Your task to perform on an android device: turn vacation reply on in the gmail app Image 0: 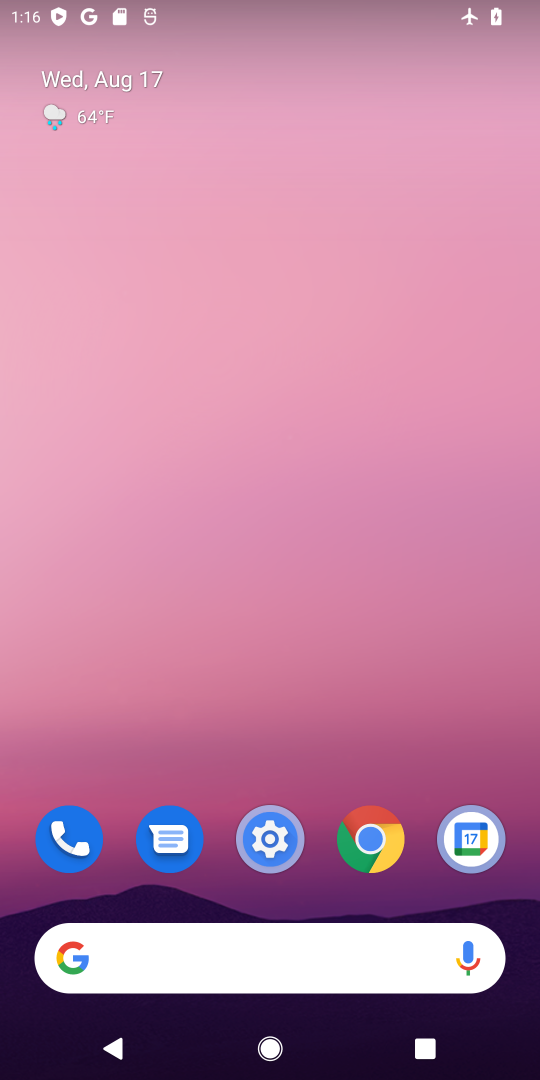
Step 0: drag from (240, 965) to (243, 241)
Your task to perform on an android device: turn vacation reply on in the gmail app Image 1: 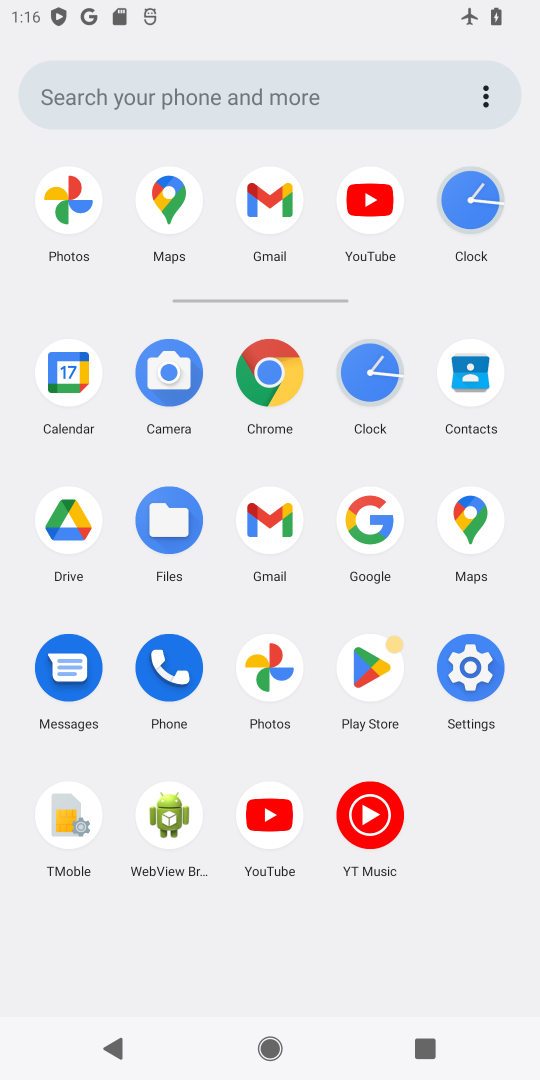
Step 1: click (267, 520)
Your task to perform on an android device: turn vacation reply on in the gmail app Image 2: 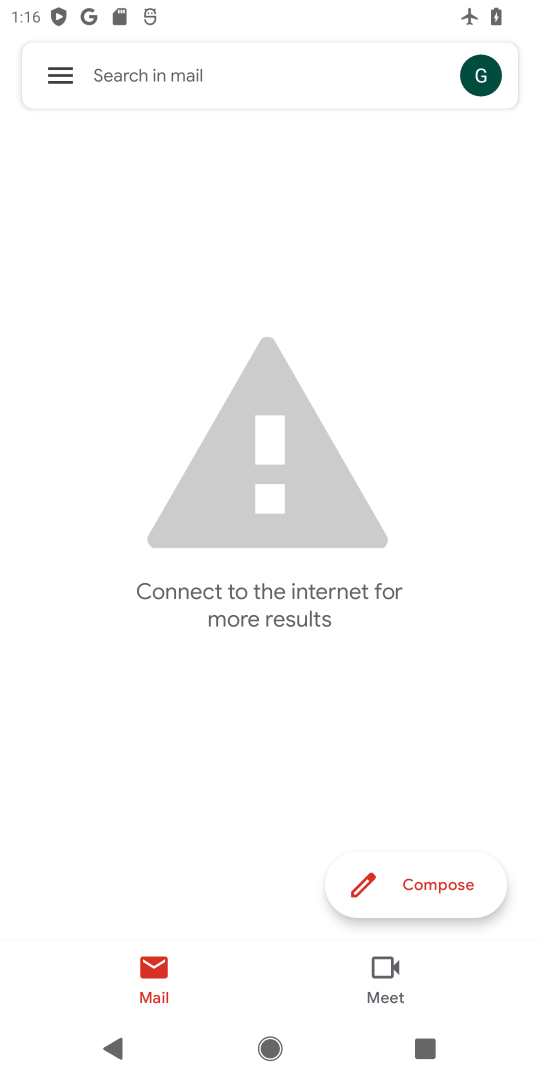
Step 2: click (51, 77)
Your task to perform on an android device: turn vacation reply on in the gmail app Image 3: 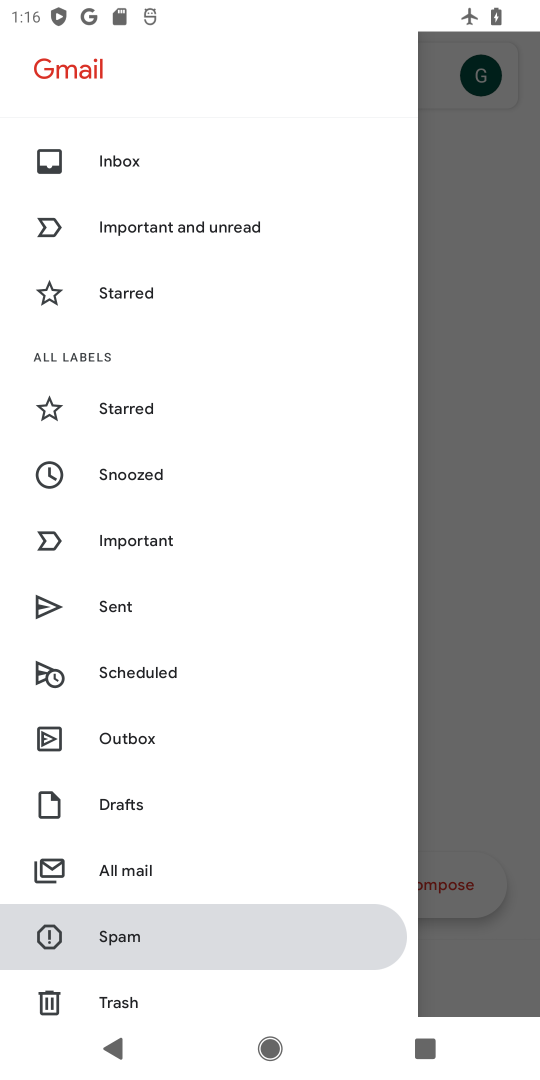
Step 3: drag from (144, 882) to (216, 763)
Your task to perform on an android device: turn vacation reply on in the gmail app Image 4: 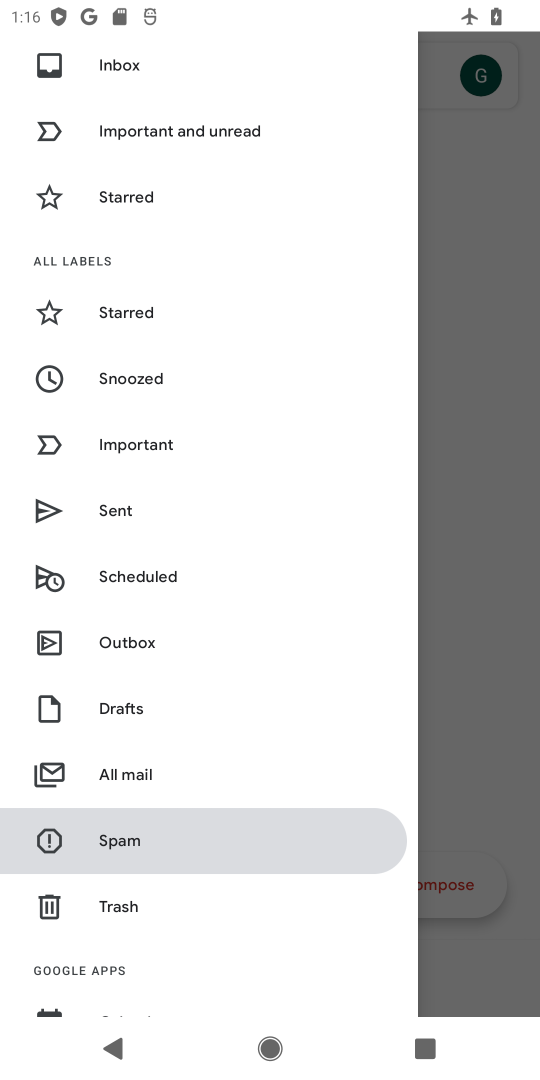
Step 4: drag from (156, 909) to (225, 750)
Your task to perform on an android device: turn vacation reply on in the gmail app Image 5: 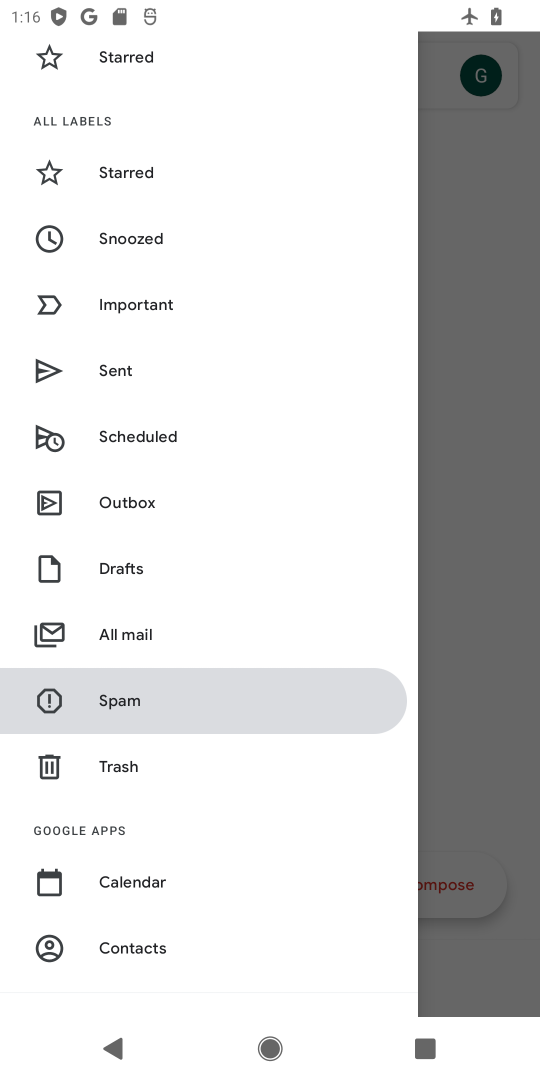
Step 5: drag from (146, 898) to (231, 718)
Your task to perform on an android device: turn vacation reply on in the gmail app Image 6: 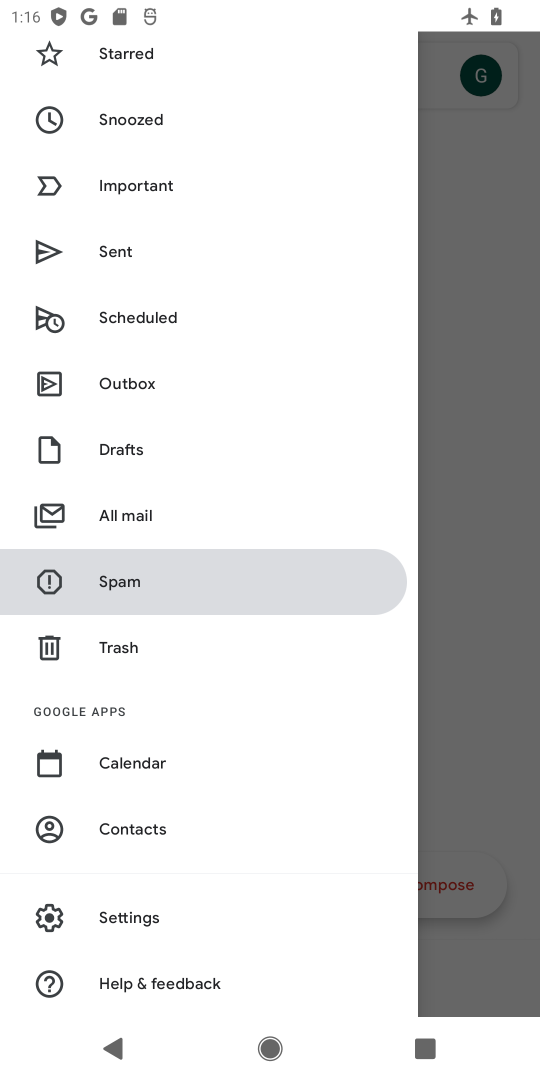
Step 6: click (141, 910)
Your task to perform on an android device: turn vacation reply on in the gmail app Image 7: 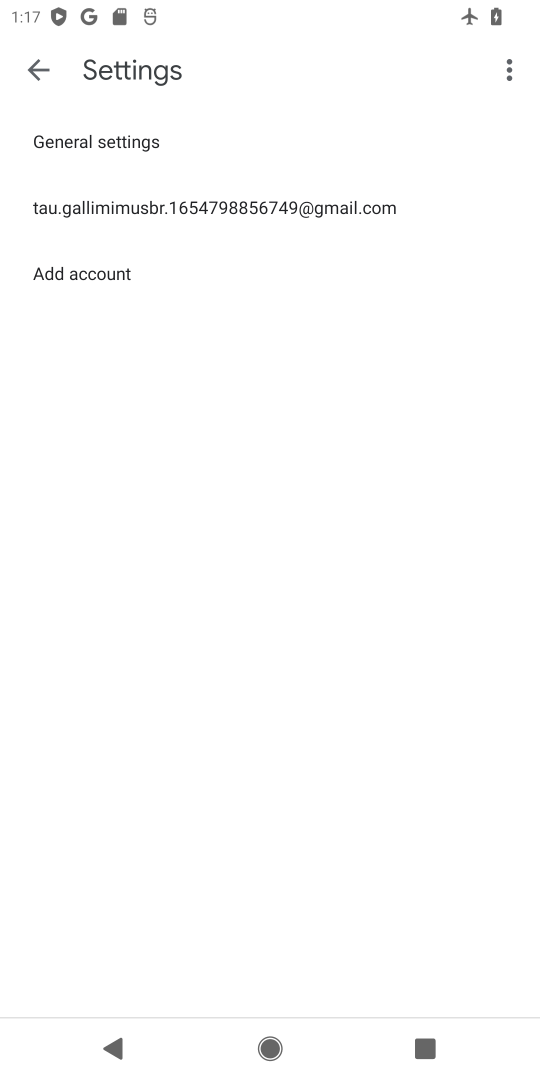
Step 7: click (176, 214)
Your task to perform on an android device: turn vacation reply on in the gmail app Image 8: 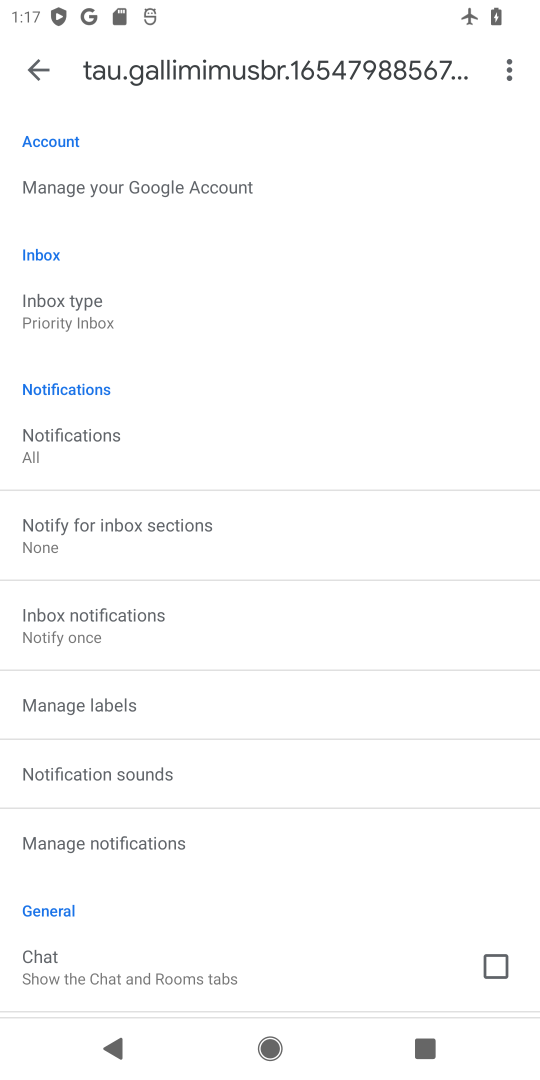
Step 8: drag from (123, 885) to (191, 711)
Your task to perform on an android device: turn vacation reply on in the gmail app Image 9: 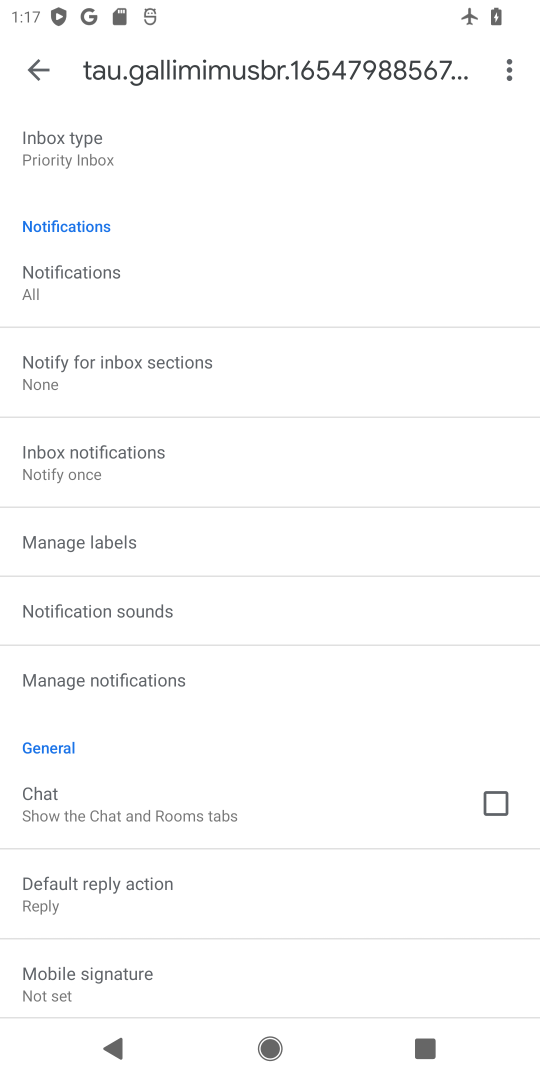
Step 9: drag from (150, 907) to (242, 743)
Your task to perform on an android device: turn vacation reply on in the gmail app Image 10: 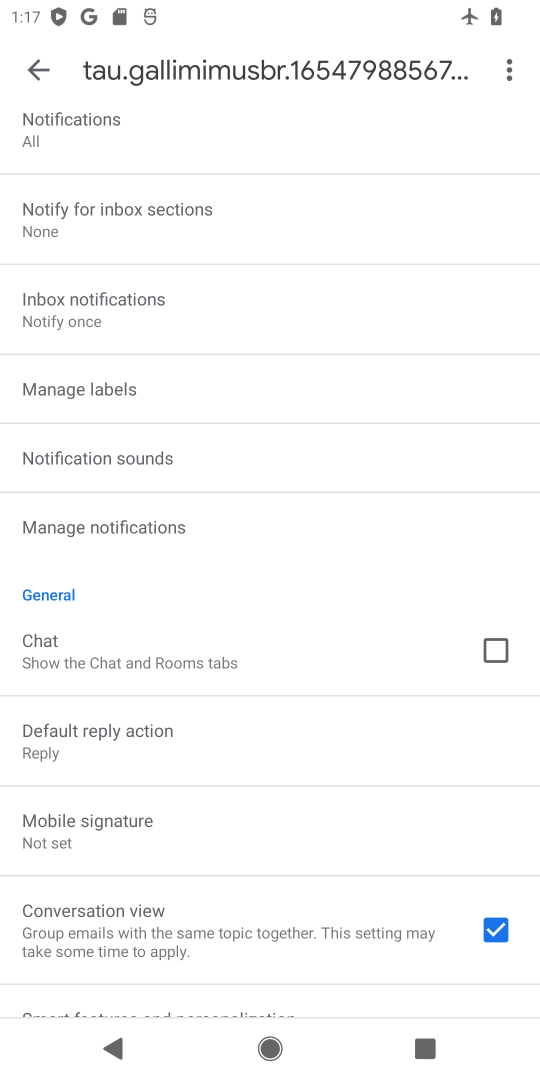
Step 10: drag from (205, 879) to (251, 761)
Your task to perform on an android device: turn vacation reply on in the gmail app Image 11: 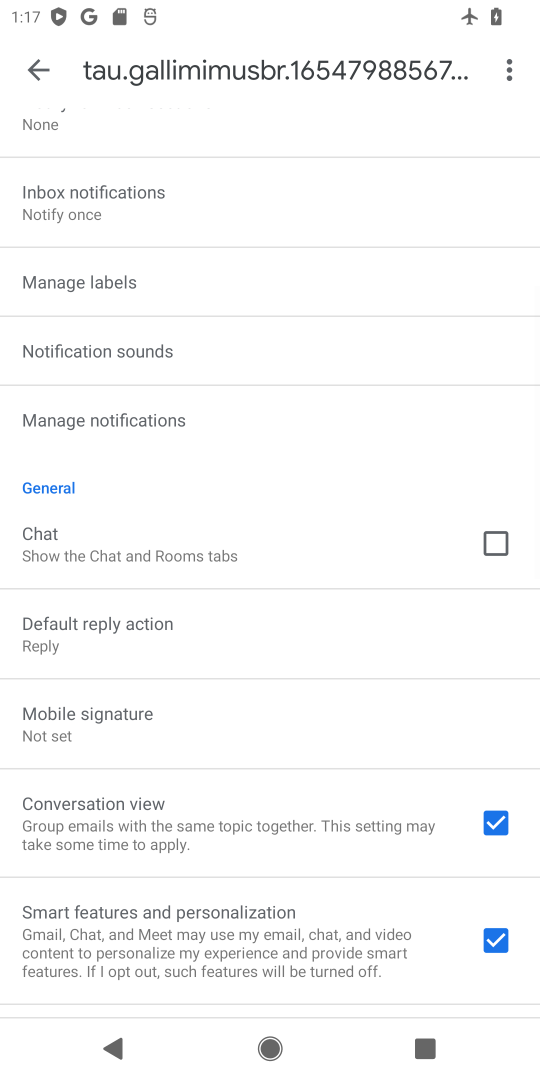
Step 11: drag from (192, 877) to (262, 732)
Your task to perform on an android device: turn vacation reply on in the gmail app Image 12: 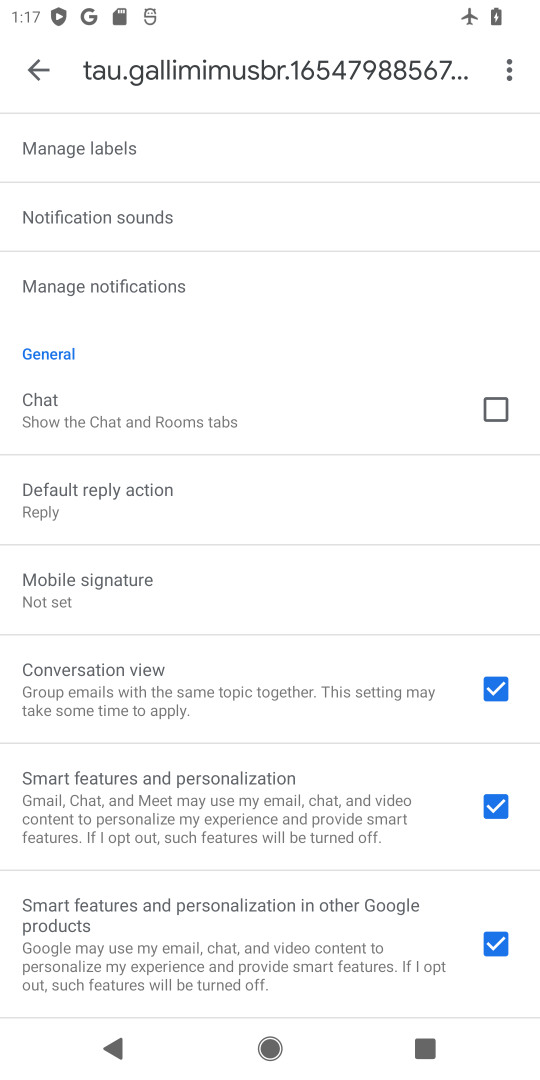
Step 12: drag from (143, 928) to (291, 745)
Your task to perform on an android device: turn vacation reply on in the gmail app Image 13: 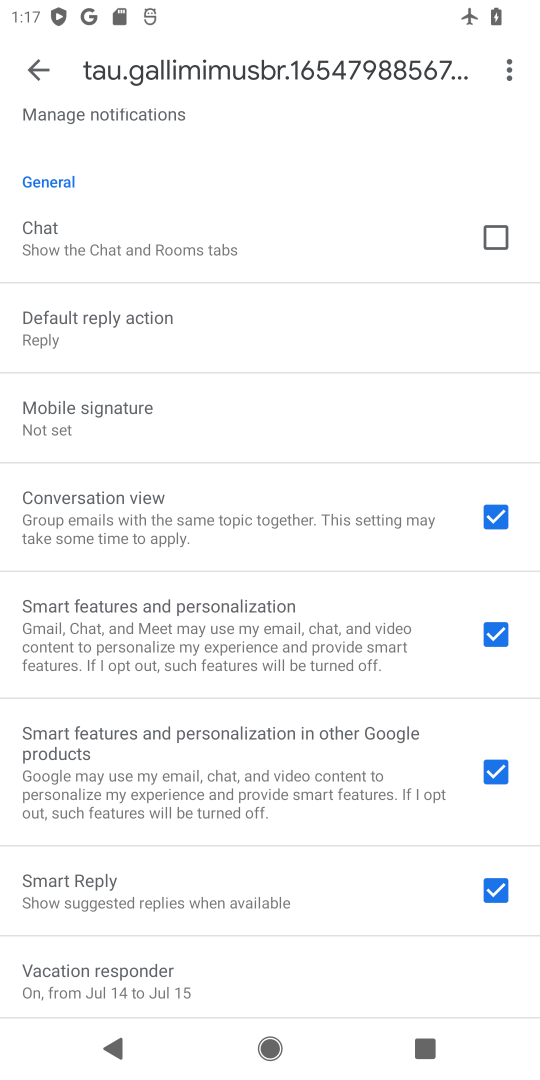
Step 13: drag from (158, 924) to (260, 810)
Your task to perform on an android device: turn vacation reply on in the gmail app Image 14: 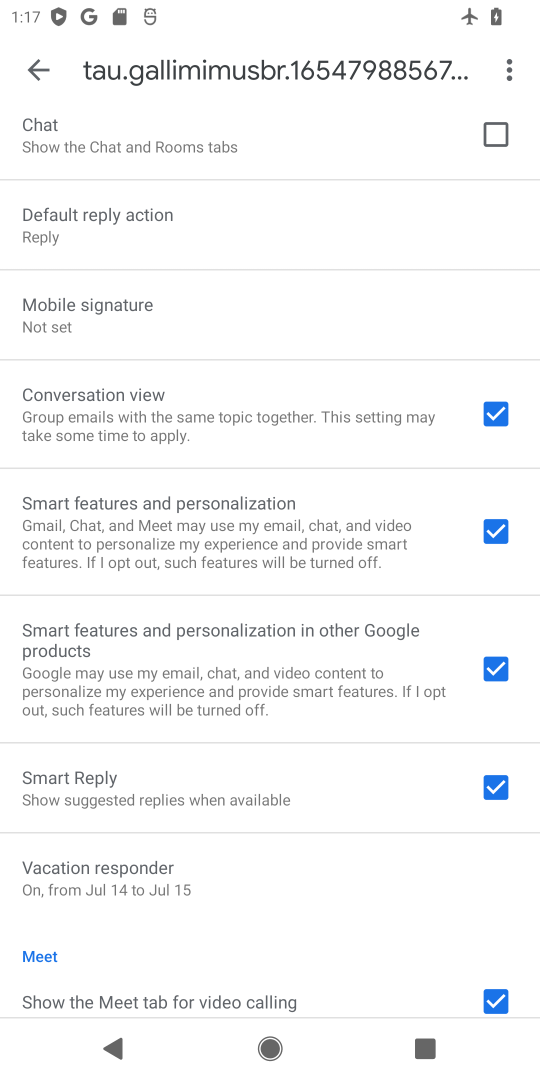
Step 14: click (160, 895)
Your task to perform on an android device: turn vacation reply on in the gmail app Image 15: 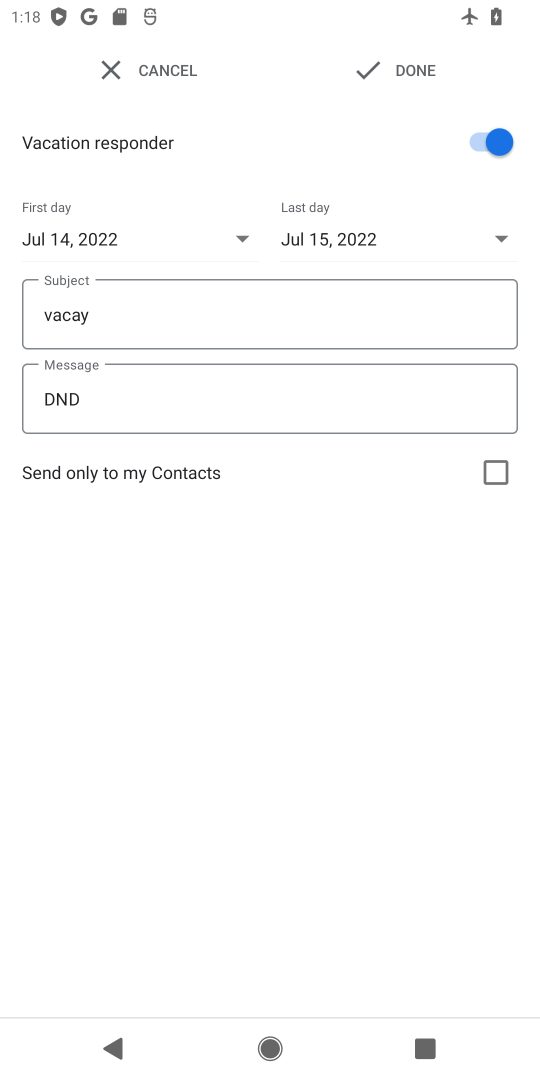
Step 15: task complete